Your task to perform on an android device: Search for sushi restaurants on Maps Image 0: 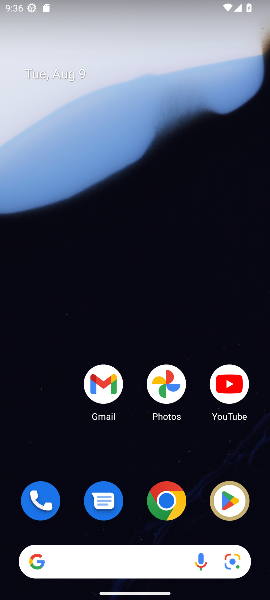
Step 0: drag from (138, 513) to (128, 239)
Your task to perform on an android device: Search for sushi restaurants on Maps Image 1: 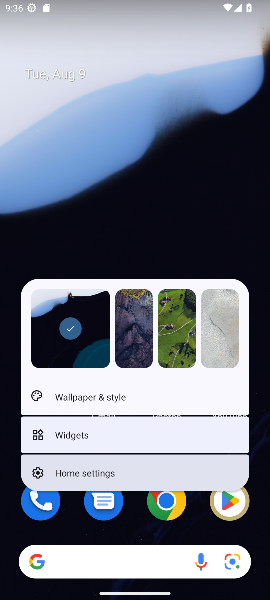
Step 1: click (130, 533)
Your task to perform on an android device: Search for sushi restaurants on Maps Image 2: 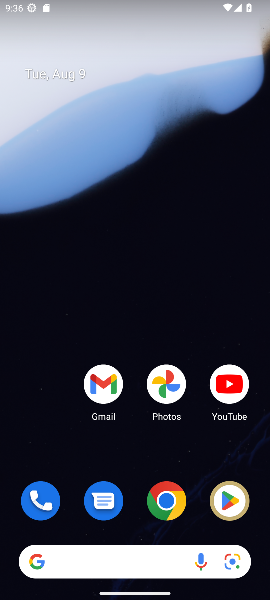
Step 2: drag from (130, 486) to (124, 26)
Your task to perform on an android device: Search for sushi restaurants on Maps Image 3: 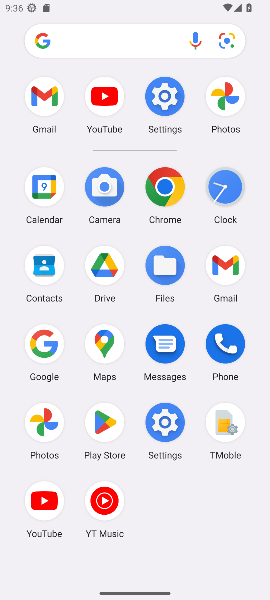
Step 3: click (100, 348)
Your task to perform on an android device: Search for sushi restaurants on Maps Image 4: 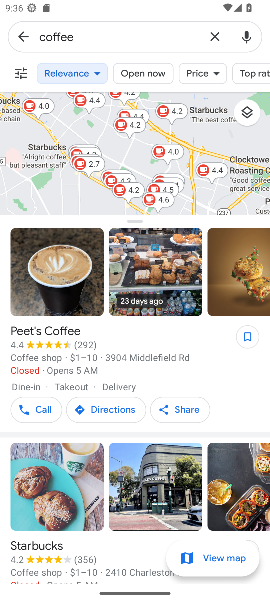
Step 4: click (24, 37)
Your task to perform on an android device: Search for sushi restaurants on Maps Image 5: 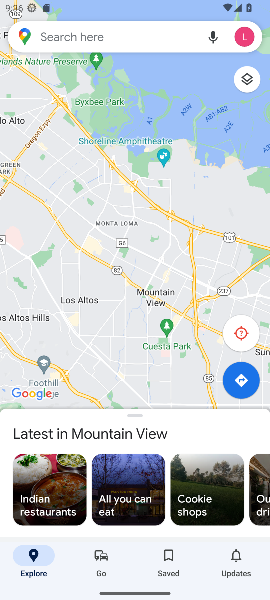
Step 5: click (127, 33)
Your task to perform on an android device: Search for sushi restaurants on Maps Image 6: 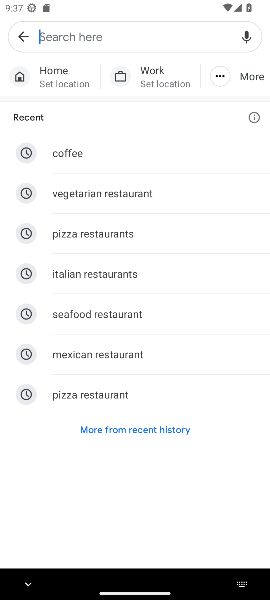
Step 6: type "sushi restaurants"
Your task to perform on an android device: Search for sushi restaurants on Maps Image 7: 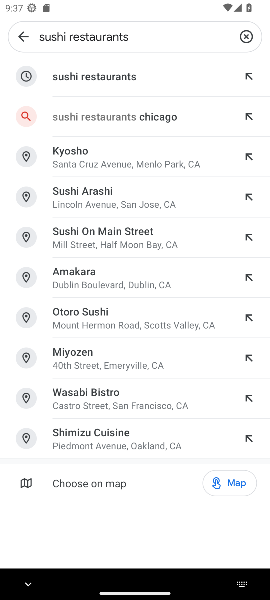
Step 7: click (99, 79)
Your task to perform on an android device: Search for sushi restaurants on Maps Image 8: 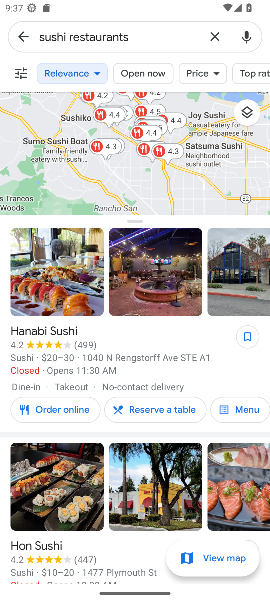
Step 8: task complete